Your task to perform on an android device: Open my contact list Image 0: 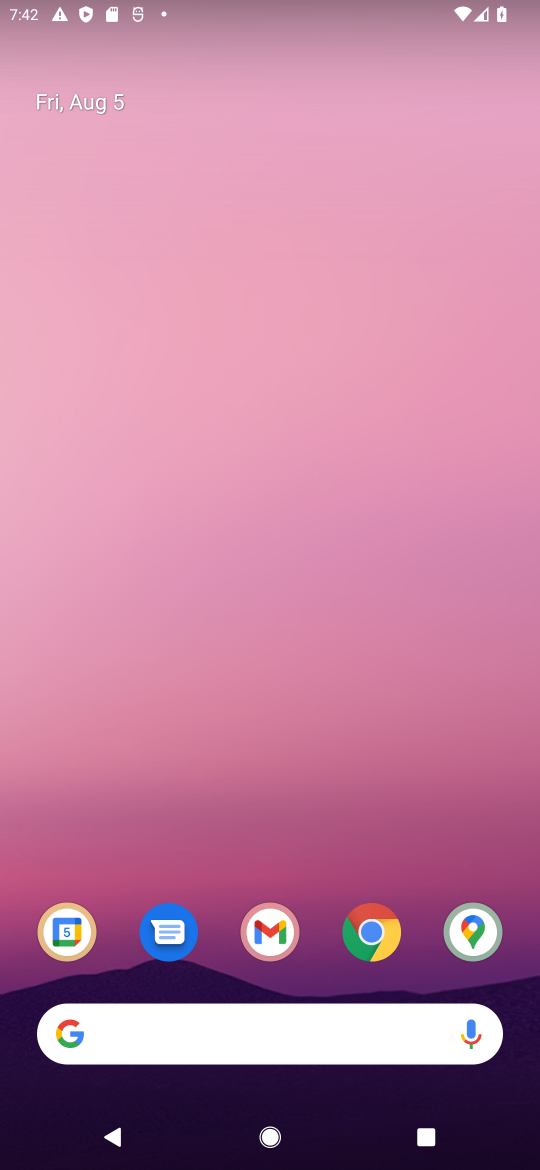
Step 0: drag from (262, 1000) to (301, 192)
Your task to perform on an android device: Open my contact list Image 1: 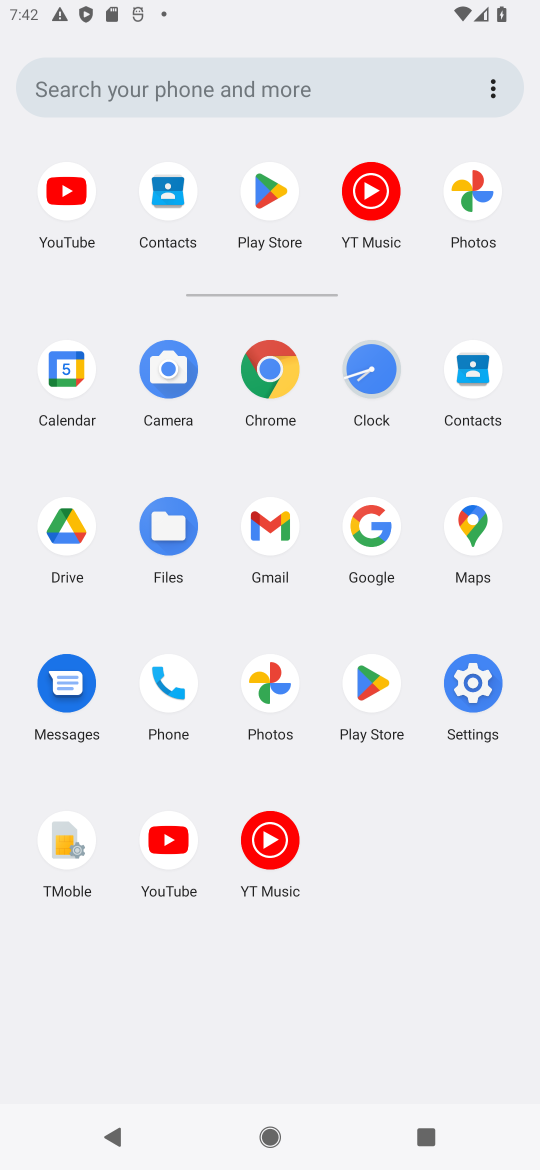
Step 1: click (472, 370)
Your task to perform on an android device: Open my contact list Image 2: 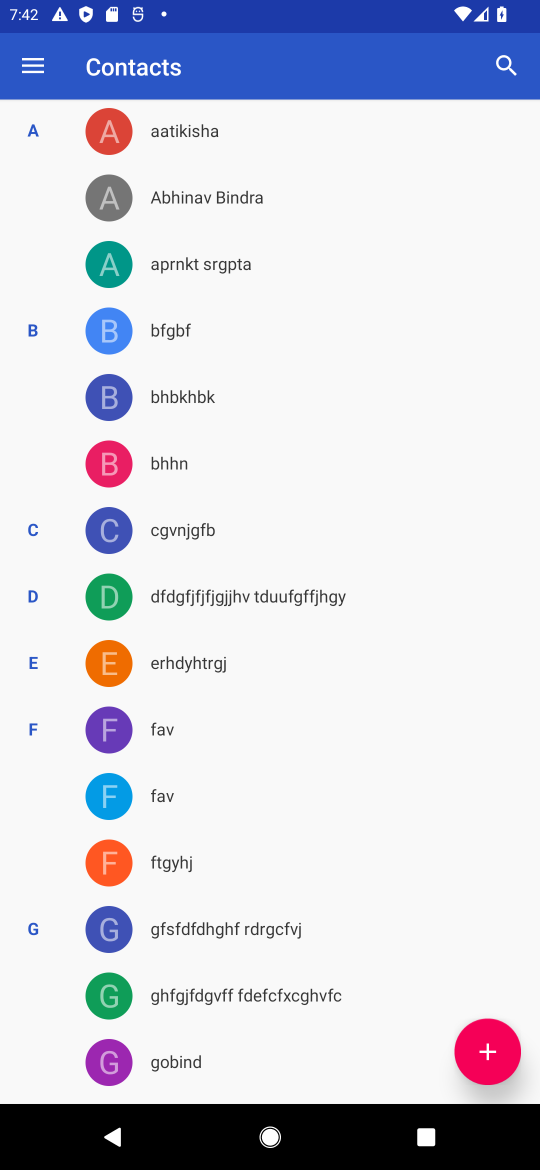
Step 2: task complete